Your task to perform on an android device: turn on translation in the chrome app Image 0: 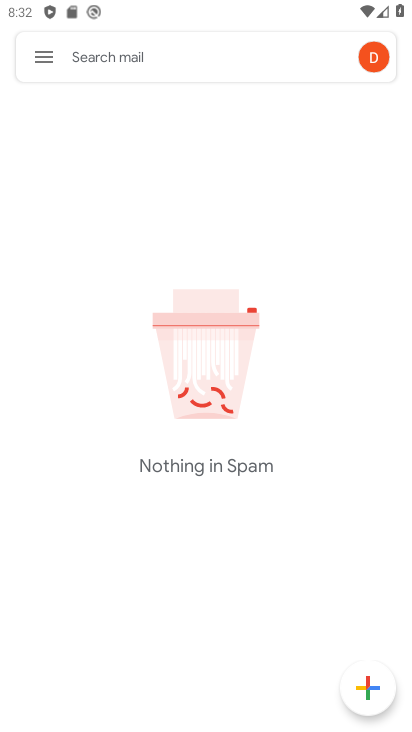
Step 0: press back button
Your task to perform on an android device: turn on translation in the chrome app Image 1: 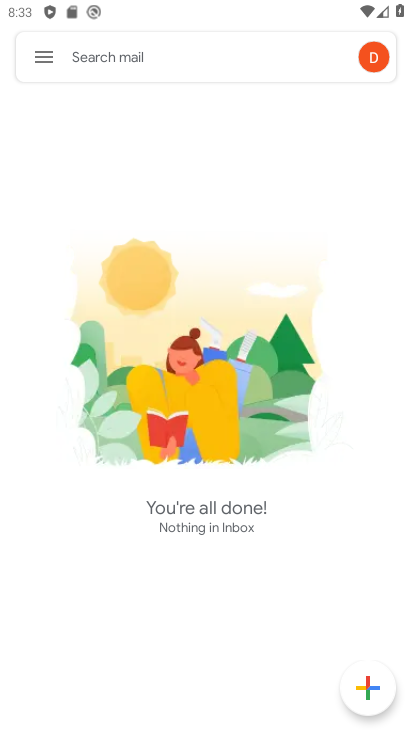
Step 1: press back button
Your task to perform on an android device: turn on translation in the chrome app Image 2: 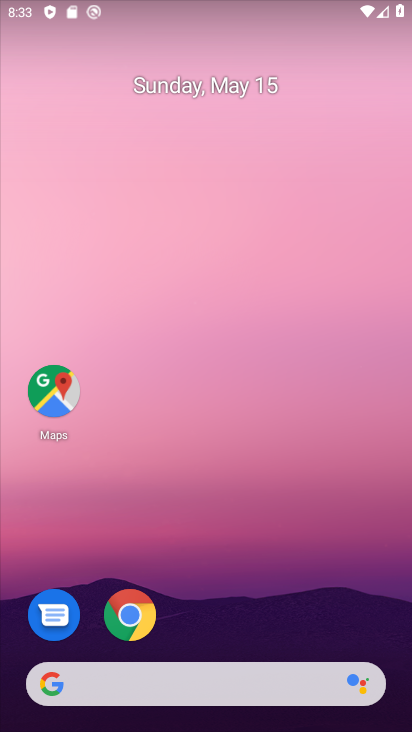
Step 2: drag from (261, 558) to (111, 11)
Your task to perform on an android device: turn on translation in the chrome app Image 3: 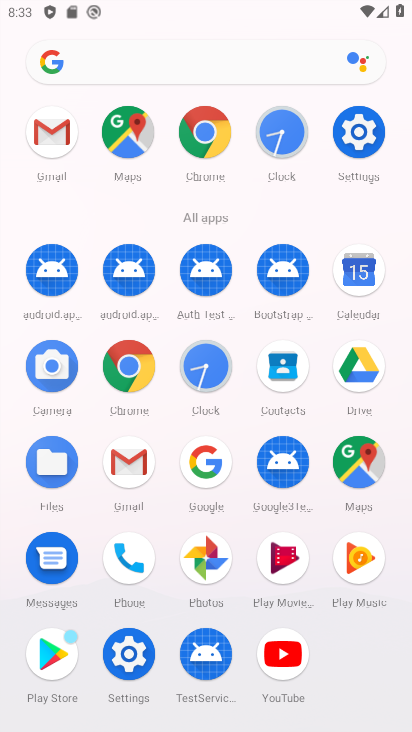
Step 3: click (127, 362)
Your task to perform on an android device: turn on translation in the chrome app Image 4: 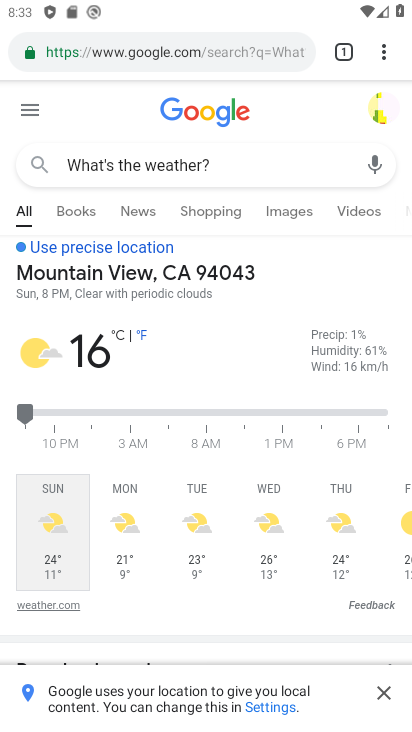
Step 4: drag from (383, 58) to (191, 587)
Your task to perform on an android device: turn on translation in the chrome app Image 5: 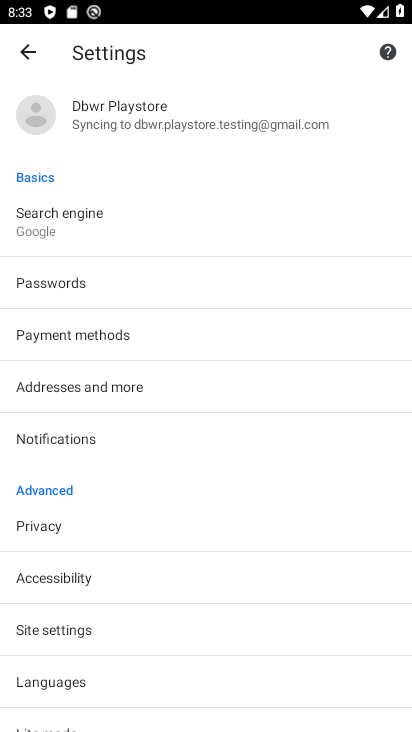
Step 5: drag from (227, 556) to (238, 227)
Your task to perform on an android device: turn on translation in the chrome app Image 6: 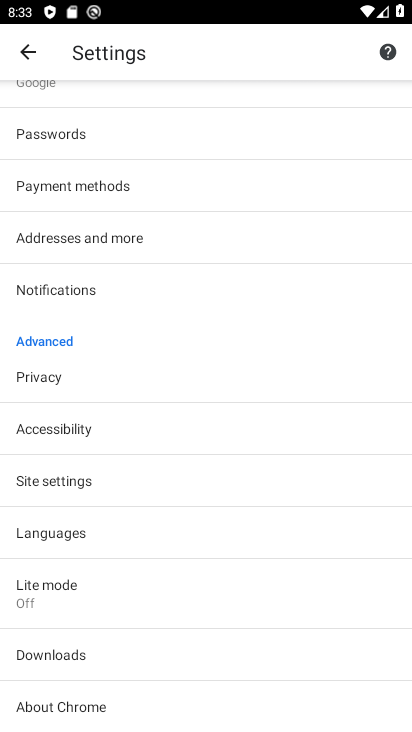
Step 6: click (98, 542)
Your task to perform on an android device: turn on translation in the chrome app Image 7: 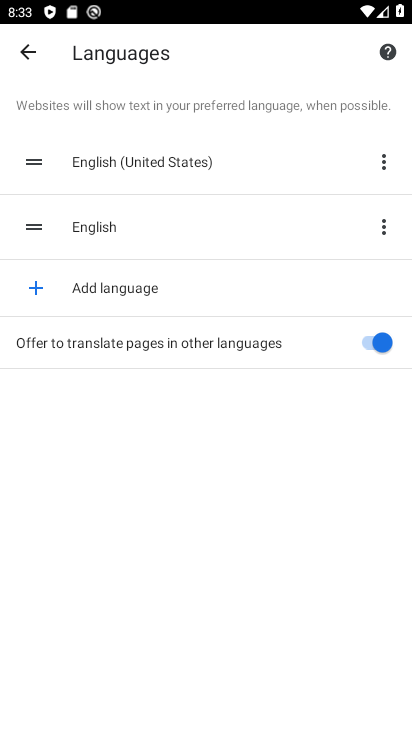
Step 7: task complete